Your task to perform on an android device: Go to Reddit.com Image 0: 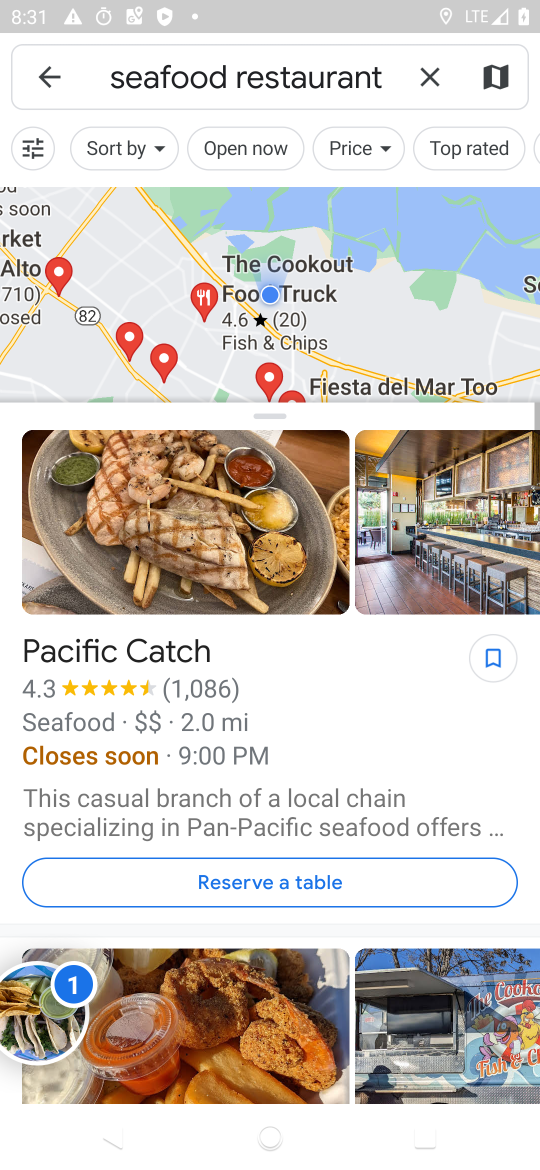
Step 0: press home button
Your task to perform on an android device: Go to Reddit.com Image 1: 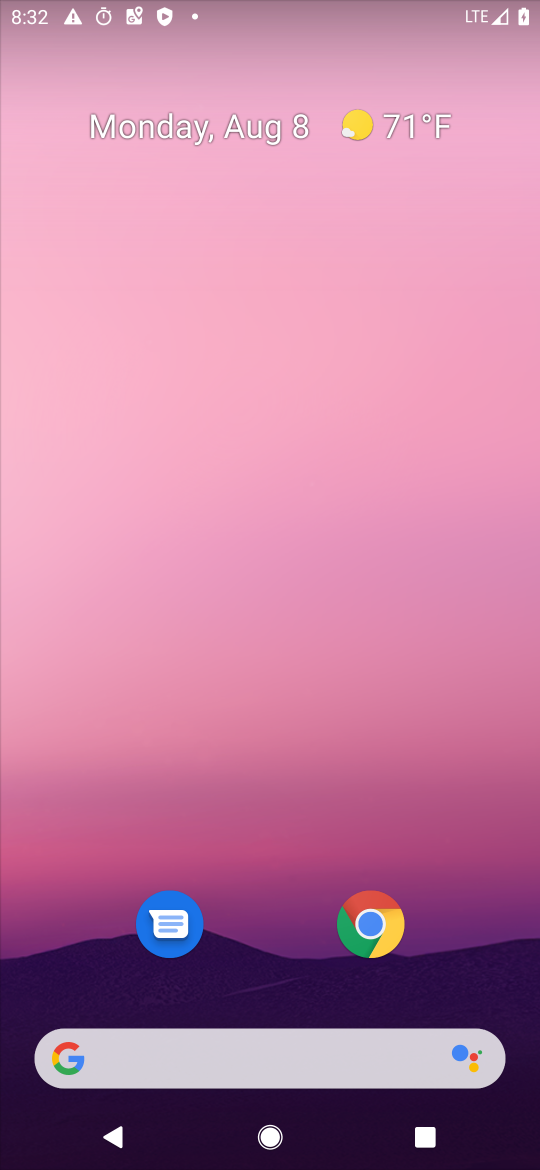
Step 1: drag from (277, 960) to (206, 316)
Your task to perform on an android device: Go to Reddit.com Image 2: 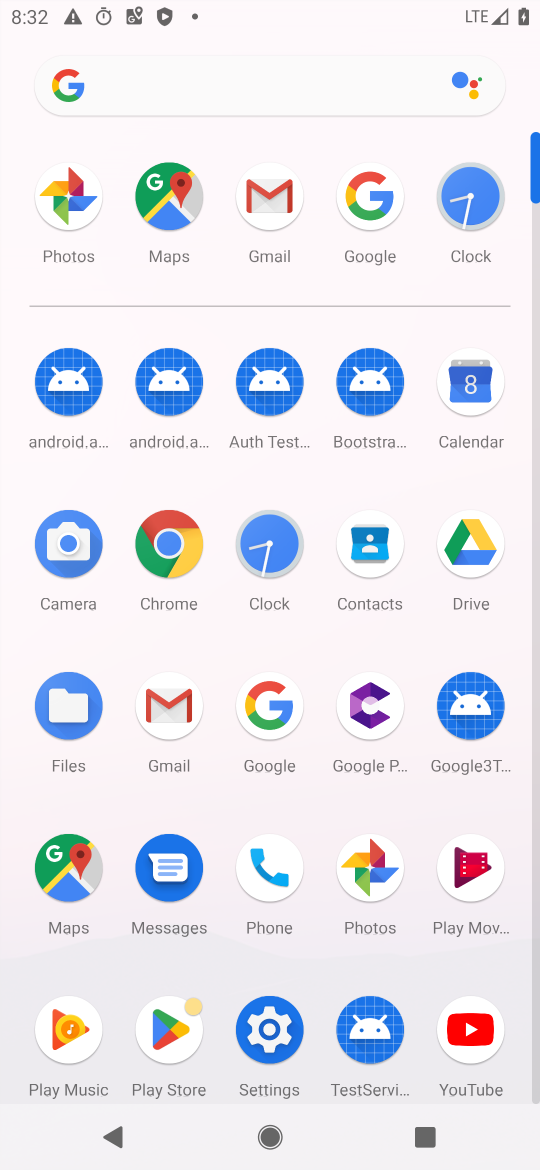
Step 2: click (247, 87)
Your task to perform on an android device: Go to Reddit.com Image 3: 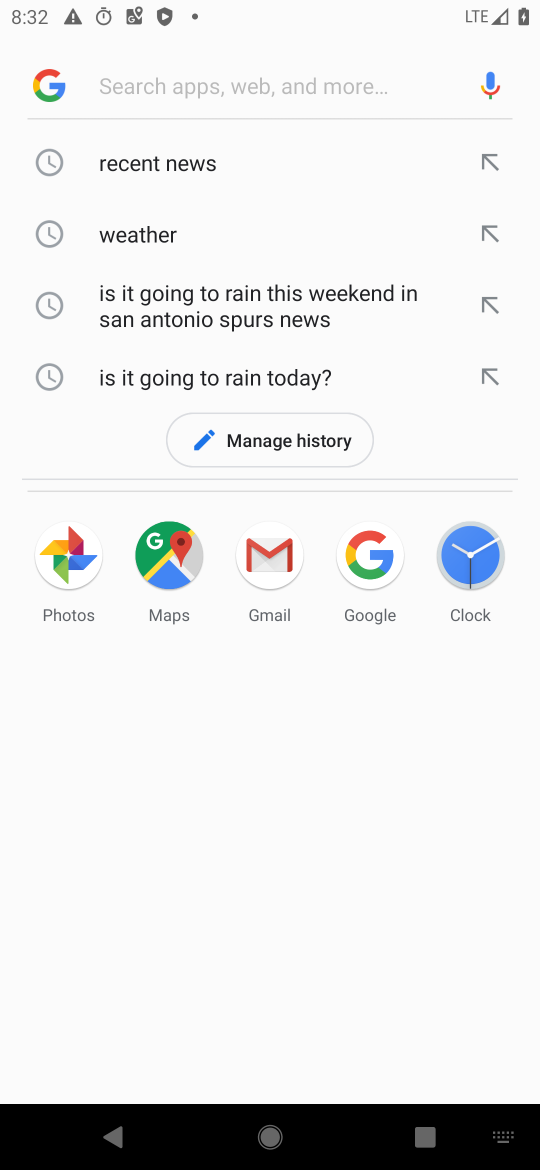
Step 3: type "Go to Reddit.com"
Your task to perform on an android device: Go to Reddit.com Image 4: 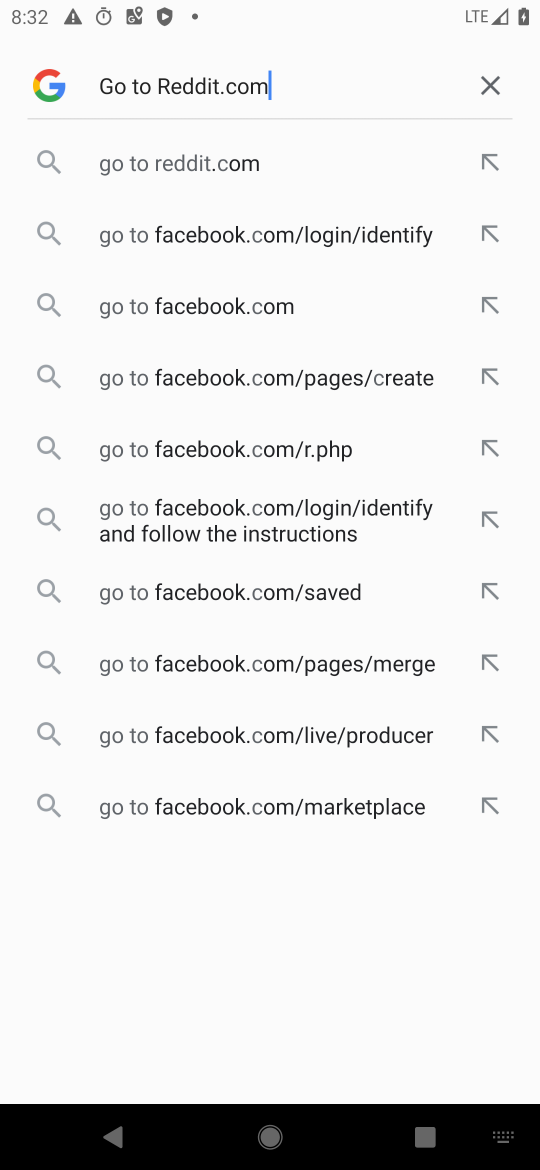
Step 4: type ""
Your task to perform on an android device: Go to Reddit.com Image 5: 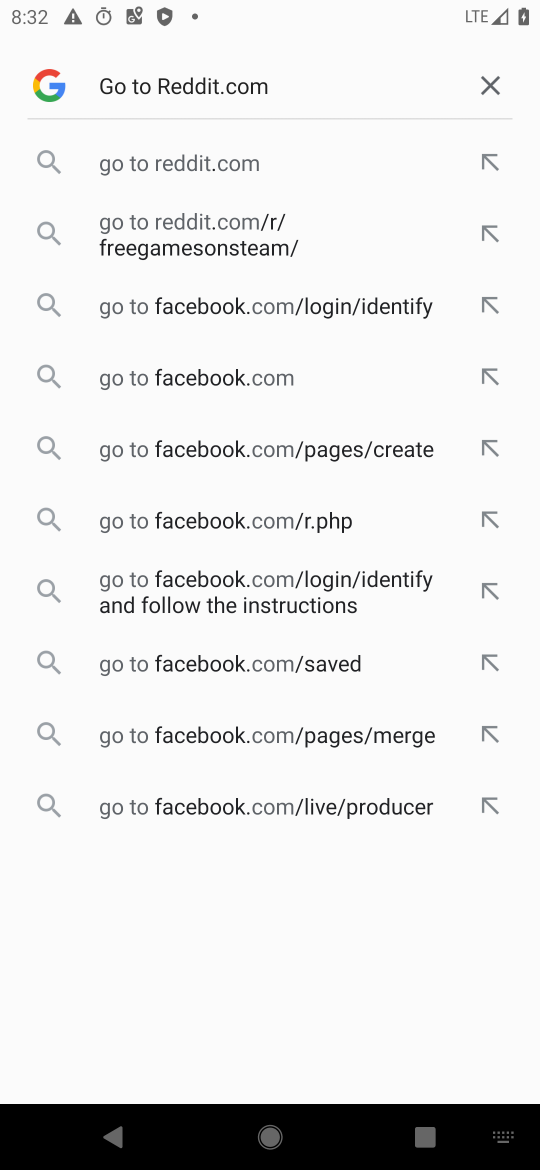
Step 5: click (226, 177)
Your task to perform on an android device: Go to Reddit.com Image 6: 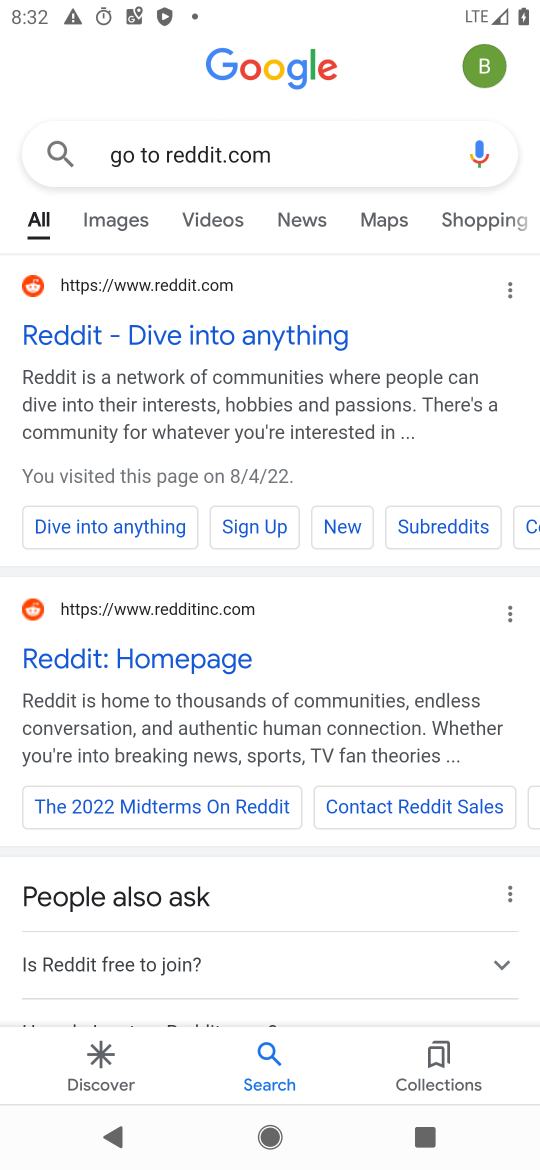
Step 6: click (197, 326)
Your task to perform on an android device: Go to Reddit.com Image 7: 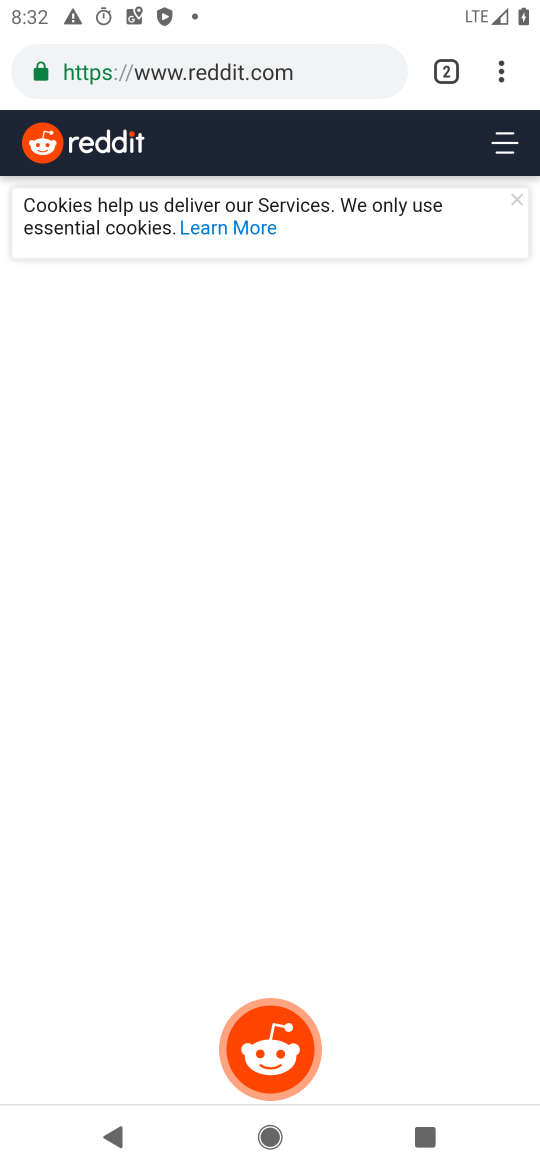
Step 7: task complete